Your task to perform on an android device: turn on showing notifications on the lock screen Image 0: 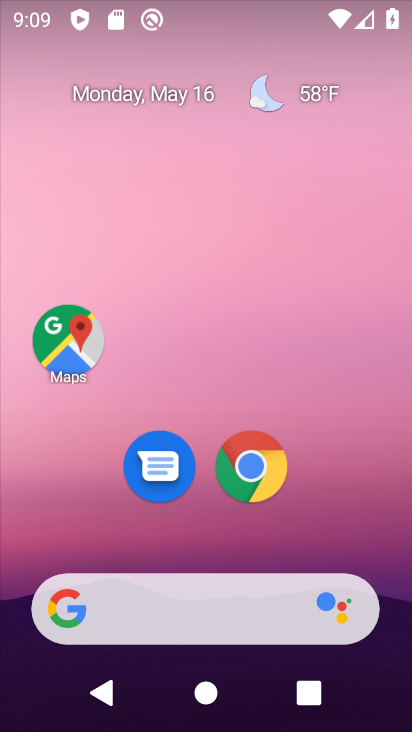
Step 0: drag from (355, 530) to (340, 43)
Your task to perform on an android device: turn on showing notifications on the lock screen Image 1: 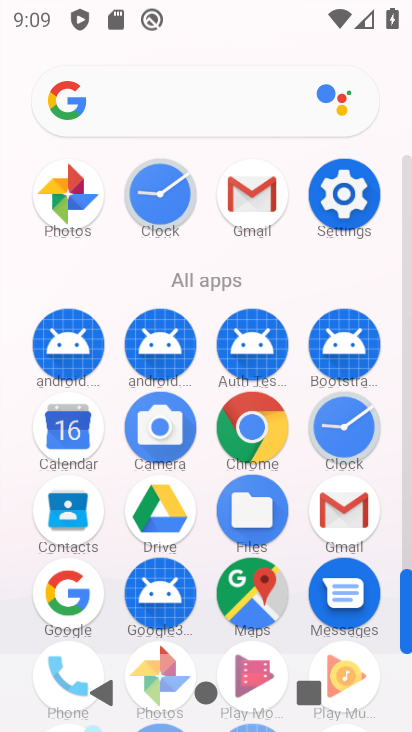
Step 1: click (351, 195)
Your task to perform on an android device: turn on showing notifications on the lock screen Image 2: 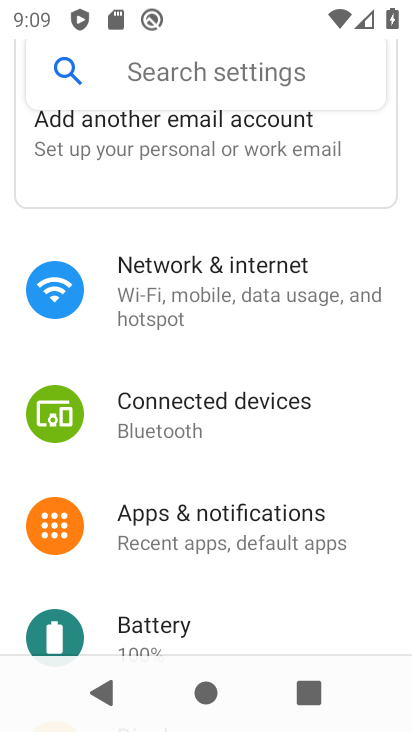
Step 2: click (247, 520)
Your task to perform on an android device: turn on showing notifications on the lock screen Image 3: 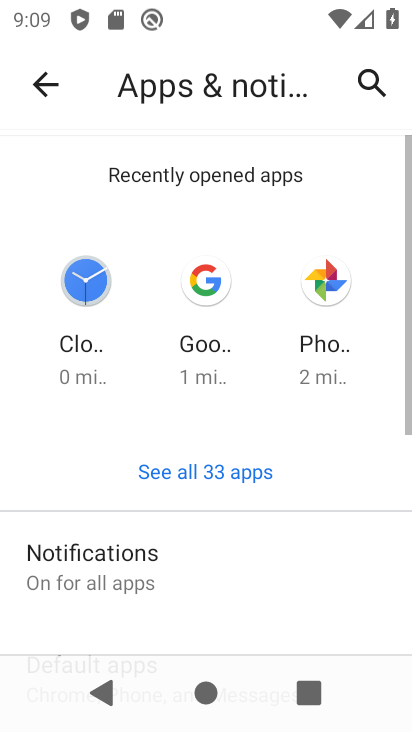
Step 3: drag from (242, 519) to (236, 403)
Your task to perform on an android device: turn on showing notifications on the lock screen Image 4: 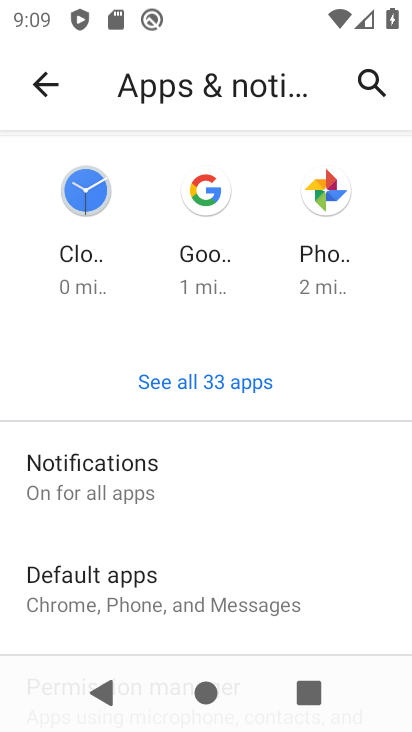
Step 4: click (160, 475)
Your task to perform on an android device: turn on showing notifications on the lock screen Image 5: 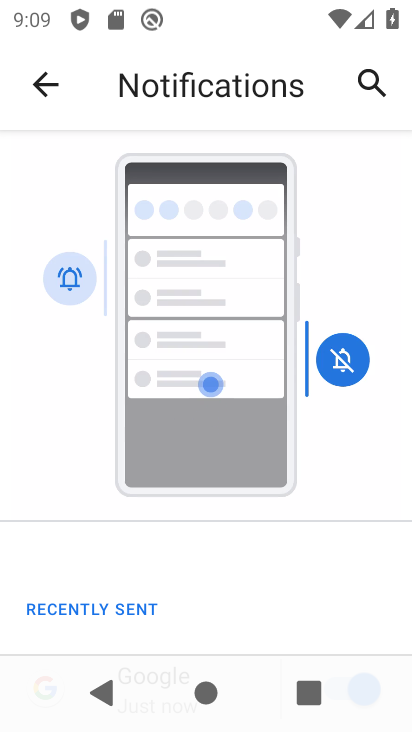
Step 5: drag from (257, 566) to (280, 199)
Your task to perform on an android device: turn on showing notifications on the lock screen Image 6: 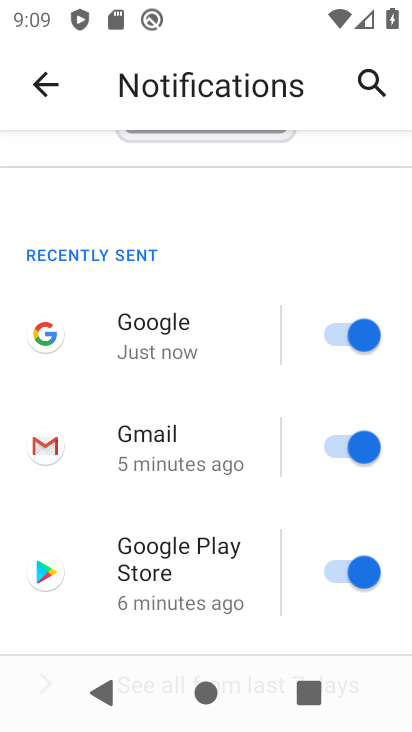
Step 6: drag from (237, 532) to (239, 316)
Your task to perform on an android device: turn on showing notifications on the lock screen Image 7: 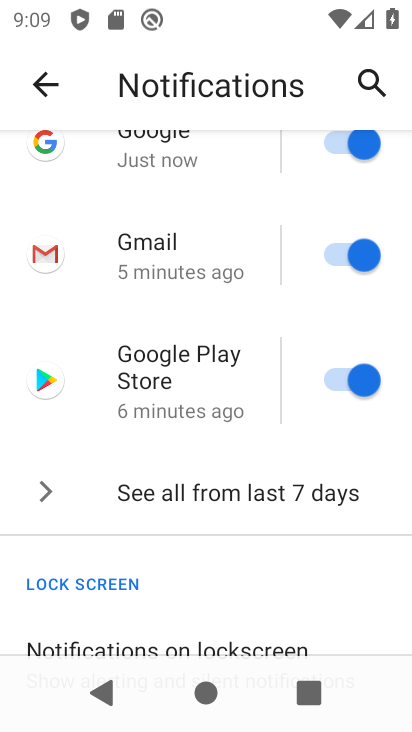
Step 7: drag from (185, 578) to (187, 350)
Your task to perform on an android device: turn on showing notifications on the lock screen Image 8: 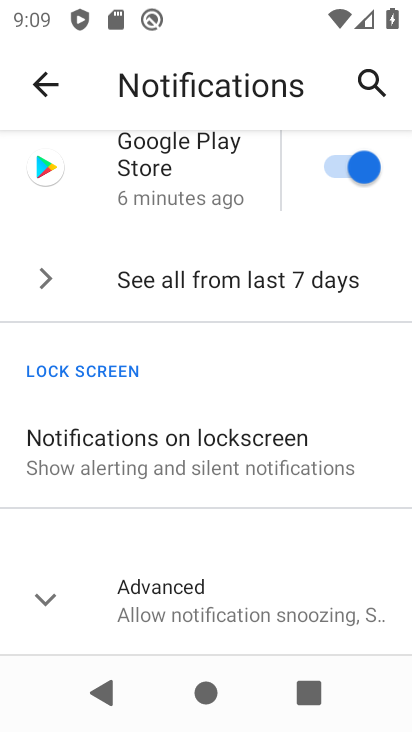
Step 8: click (196, 485)
Your task to perform on an android device: turn on showing notifications on the lock screen Image 9: 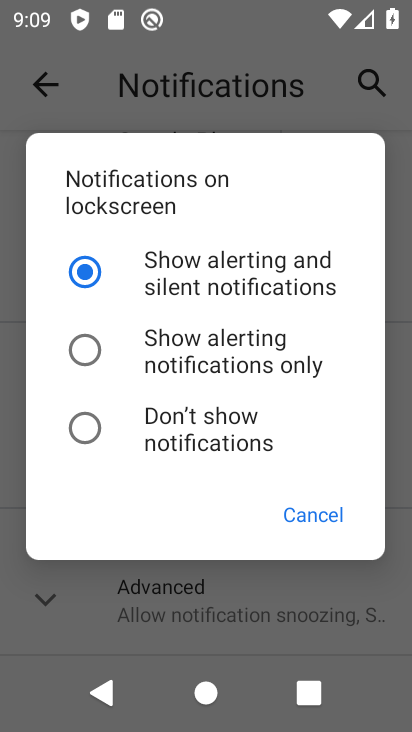
Step 9: click (235, 252)
Your task to perform on an android device: turn on showing notifications on the lock screen Image 10: 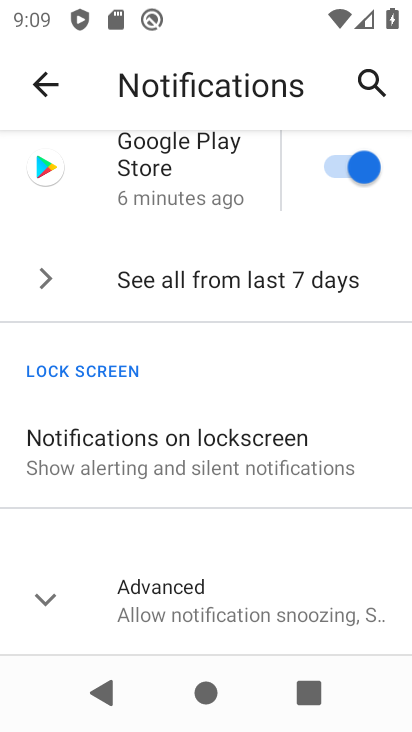
Step 10: task complete